Your task to perform on an android device: see tabs open on other devices in the chrome app Image 0: 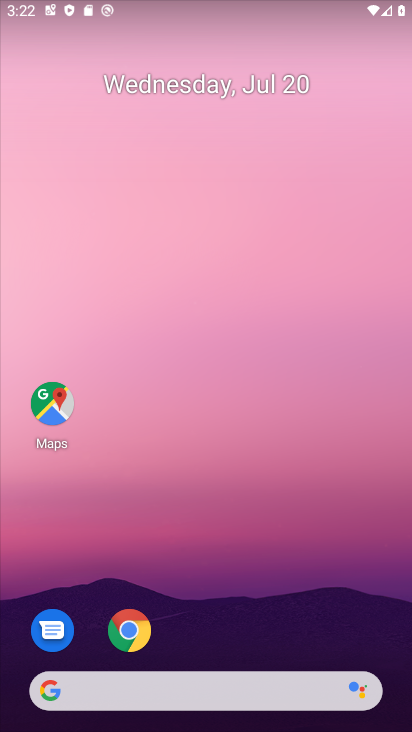
Step 0: press home button
Your task to perform on an android device: see tabs open on other devices in the chrome app Image 1: 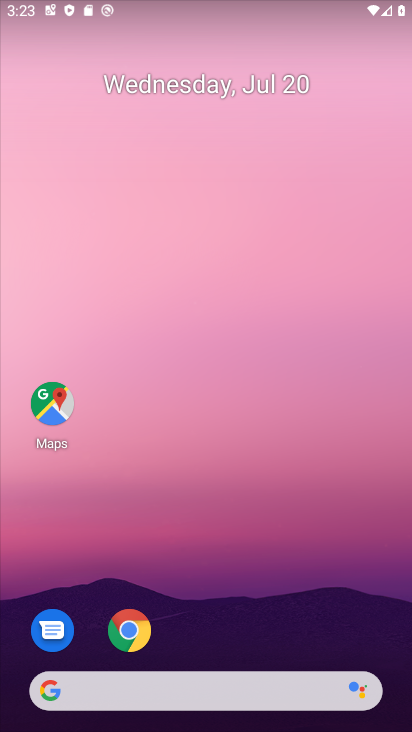
Step 1: click (128, 624)
Your task to perform on an android device: see tabs open on other devices in the chrome app Image 2: 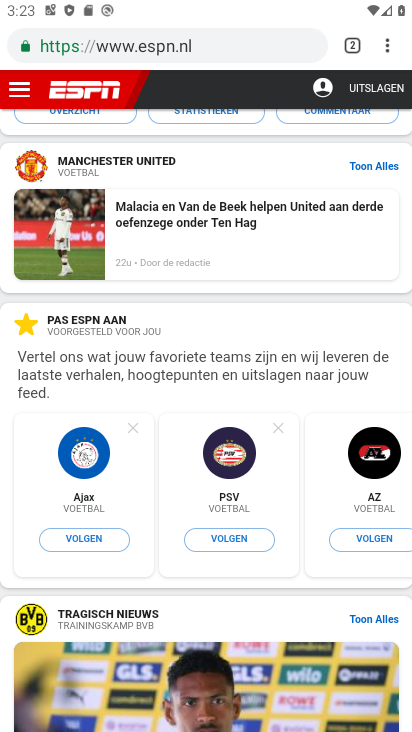
Step 2: click (386, 40)
Your task to perform on an android device: see tabs open on other devices in the chrome app Image 3: 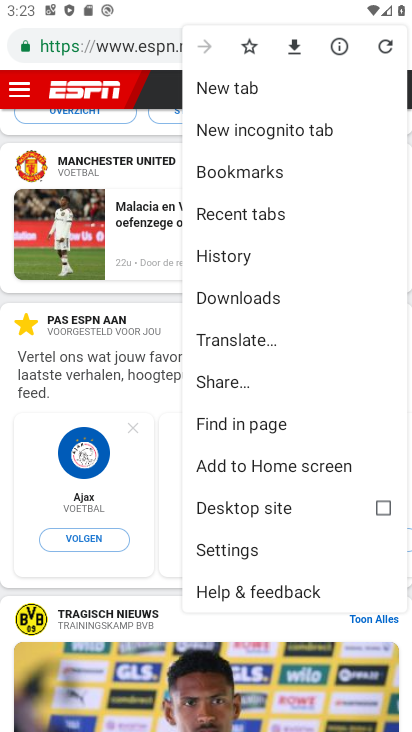
Step 3: click (291, 209)
Your task to perform on an android device: see tabs open on other devices in the chrome app Image 4: 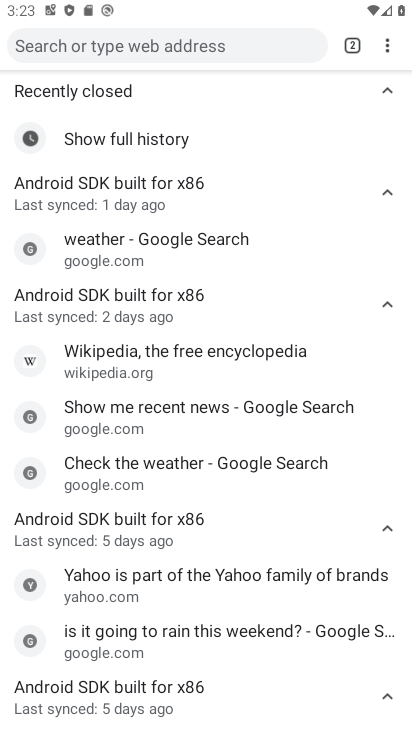
Step 4: task complete